Your task to perform on an android device: Toggle the flashlight Image 0: 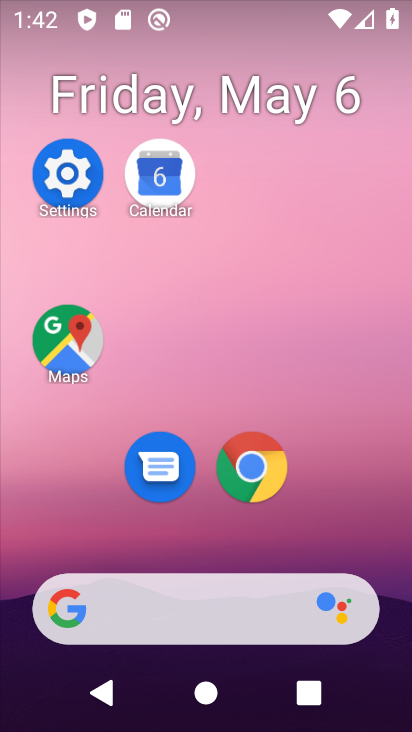
Step 0: drag from (249, 3) to (252, 349)
Your task to perform on an android device: Toggle the flashlight Image 1: 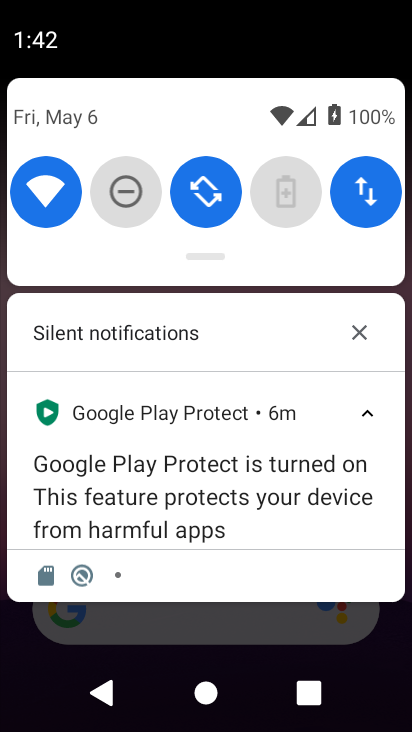
Step 1: task complete